Your task to perform on an android device: check battery use Image 0: 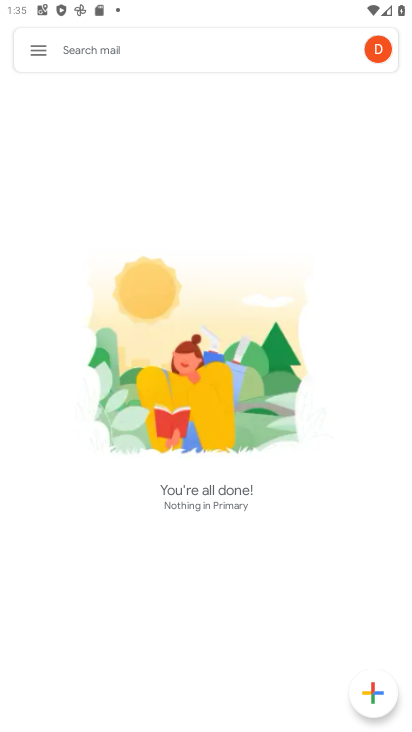
Step 0: press home button
Your task to perform on an android device: check battery use Image 1: 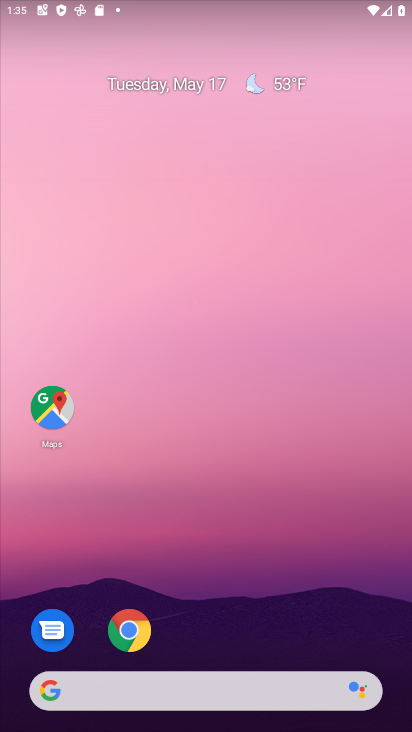
Step 1: drag from (227, 619) to (314, 111)
Your task to perform on an android device: check battery use Image 2: 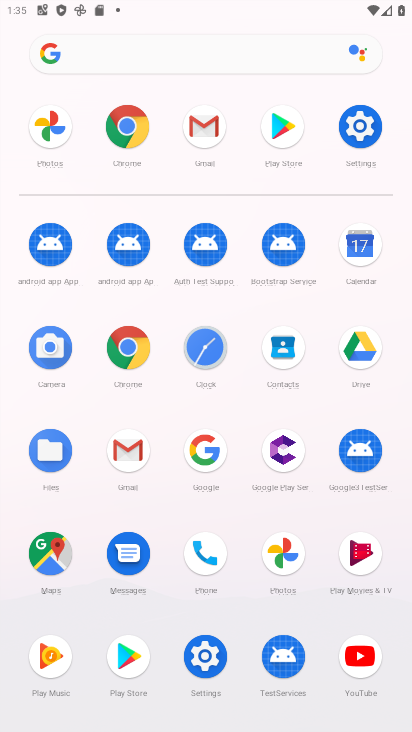
Step 2: click (367, 124)
Your task to perform on an android device: check battery use Image 3: 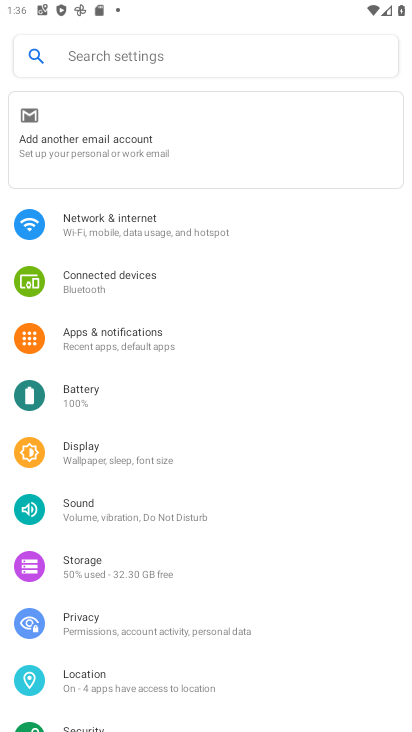
Step 3: click (164, 407)
Your task to perform on an android device: check battery use Image 4: 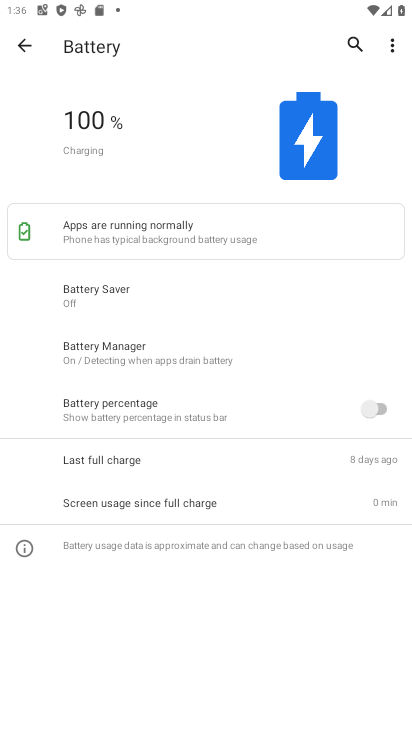
Step 4: task complete